Your task to perform on an android device: open sync settings in chrome Image 0: 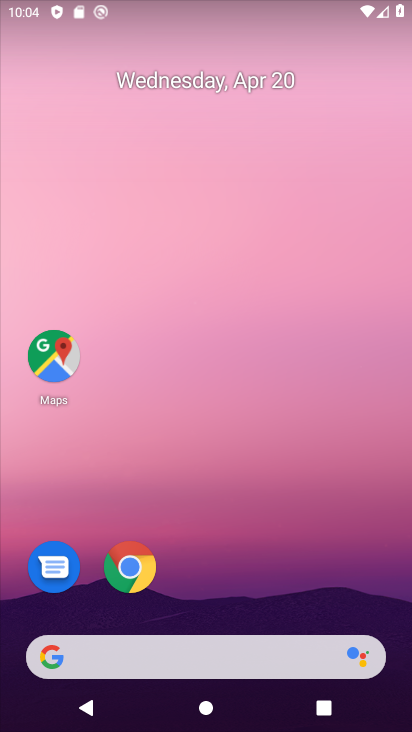
Step 0: click (130, 569)
Your task to perform on an android device: open sync settings in chrome Image 1: 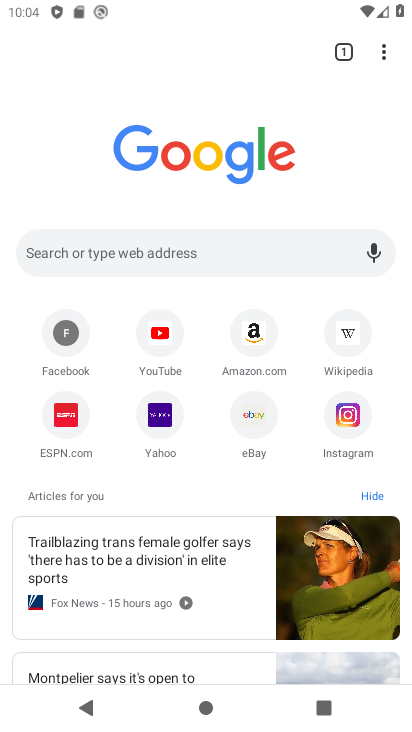
Step 1: click (382, 50)
Your task to perform on an android device: open sync settings in chrome Image 2: 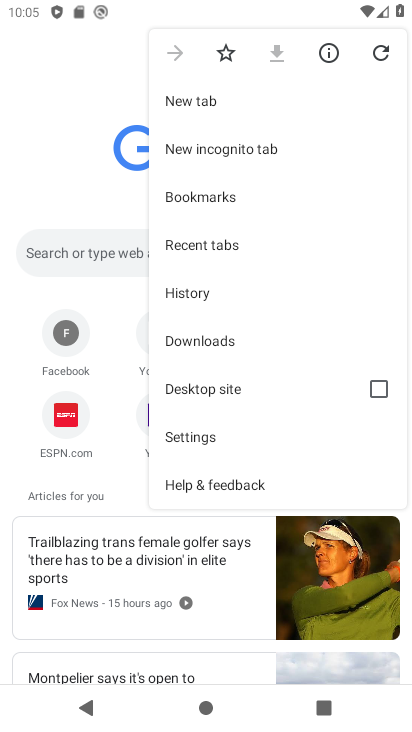
Step 2: click (203, 437)
Your task to perform on an android device: open sync settings in chrome Image 3: 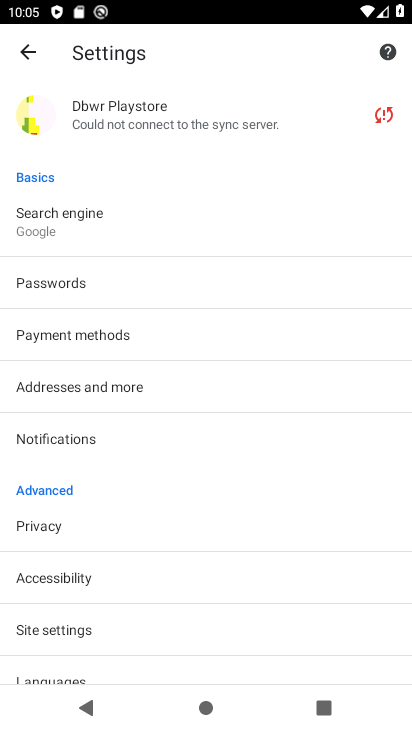
Step 3: click (71, 630)
Your task to perform on an android device: open sync settings in chrome Image 4: 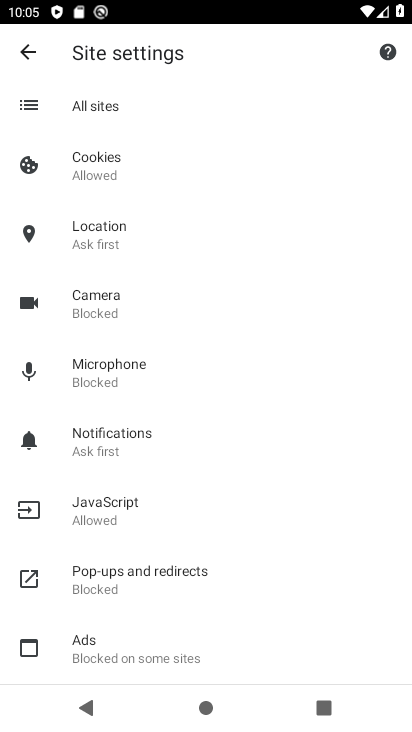
Step 4: drag from (170, 552) to (206, 419)
Your task to perform on an android device: open sync settings in chrome Image 5: 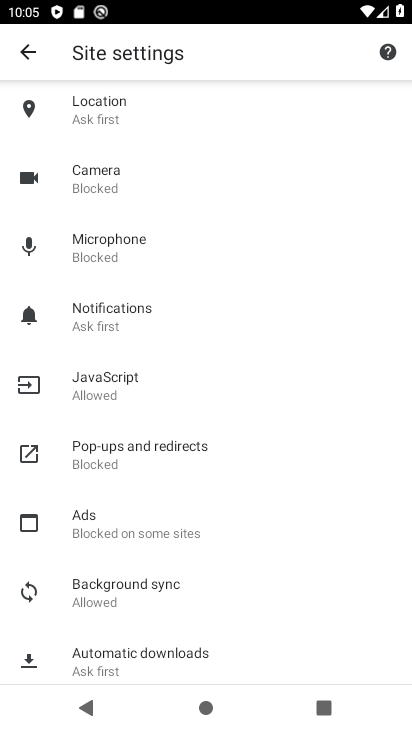
Step 5: click (125, 587)
Your task to perform on an android device: open sync settings in chrome Image 6: 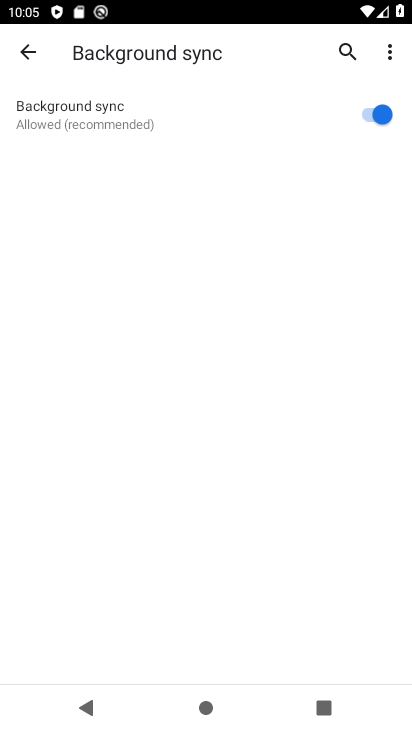
Step 6: task complete